Your task to perform on an android device: delete a single message in the gmail app Image 0: 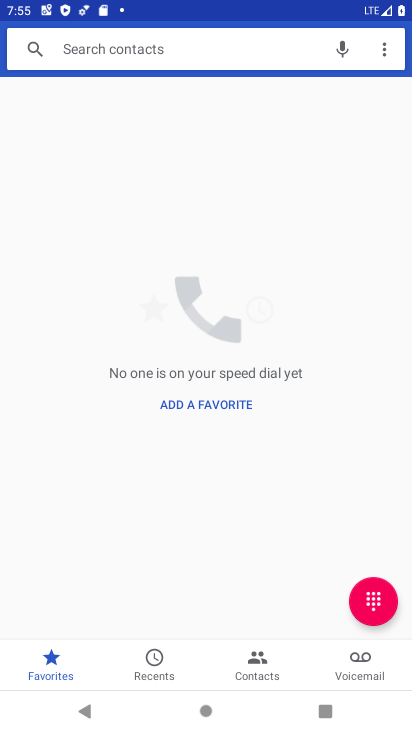
Step 0: press home button
Your task to perform on an android device: delete a single message in the gmail app Image 1: 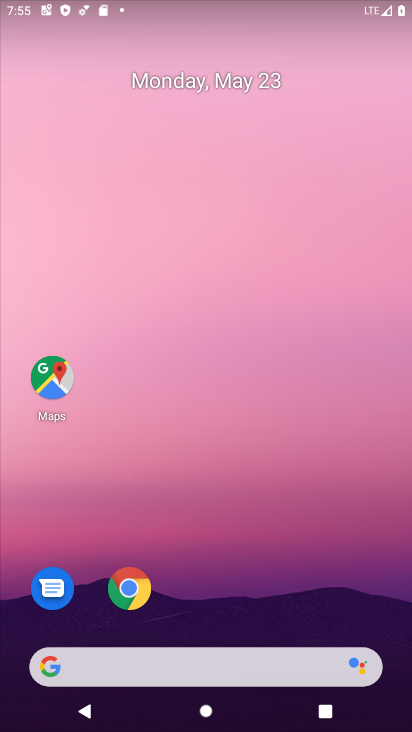
Step 1: drag from (396, 700) to (397, 145)
Your task to perform on an android device: delete a single message in the gmail app Image 2: 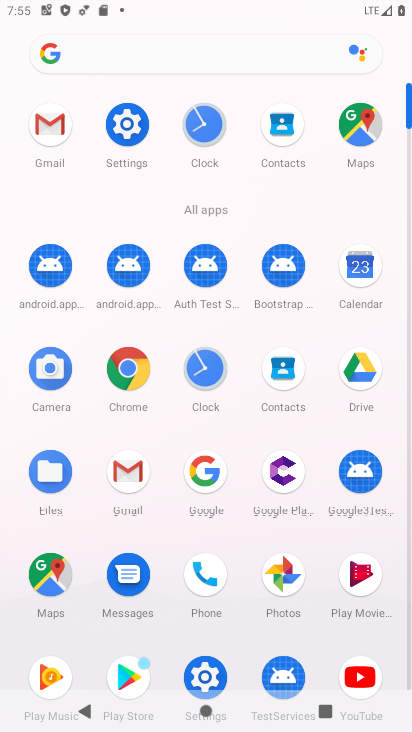
Step 2: click (127, 469)
Your task to perform on an android device: delete a single message in the gmail app Image 3: 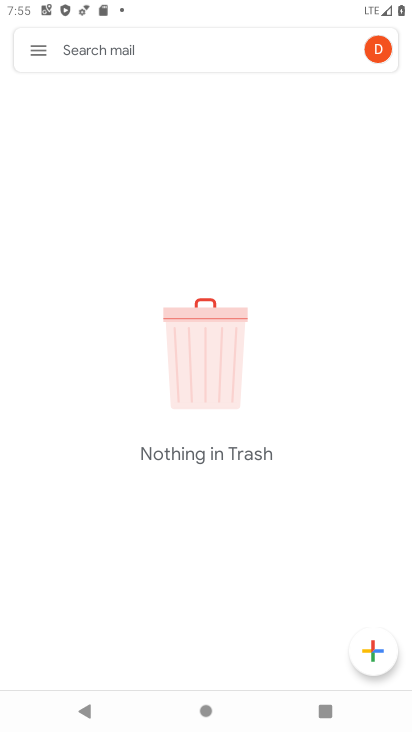
Step 3: click (38, 41)
Your task to perform on an android device: delete a single message in the gmail app Image 4: 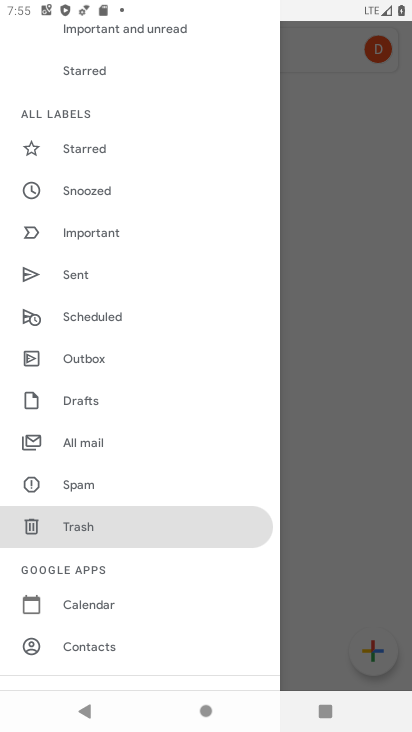
Step 4: drag from (196, 111) to (193, 449)
Your task to perform on an android device: delete a single message in the gmail app Image 5: 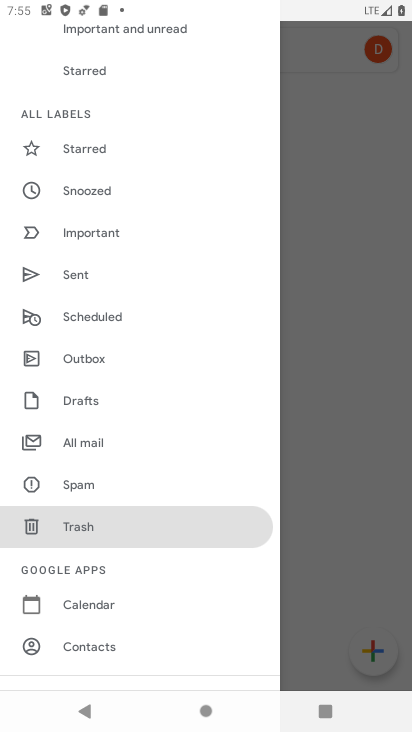
Step 5: drag from (248, 59) to (221, 577)
Your task to perform on an android device: delete a single message in the gmail app Image 6: 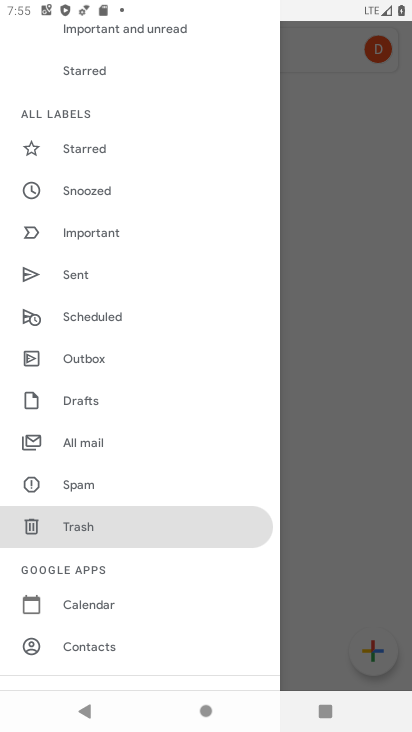
Step 6: drag from (214, 334) to (205, 598)
Your task to perform on an android device: delete a single message in the gmail app Image 7: 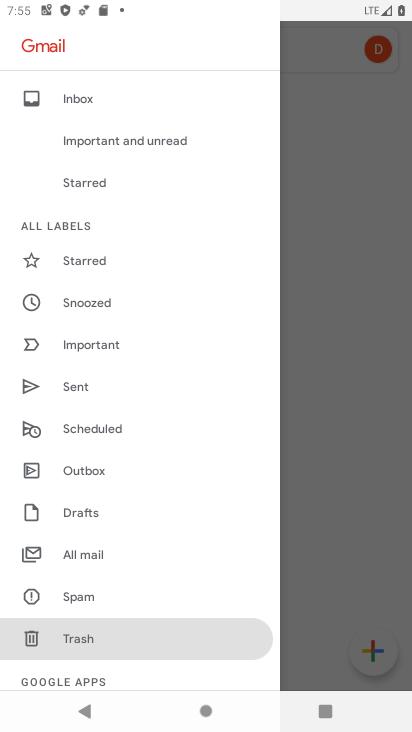
Step 7: click (73, 96)
Your task to perform on an android device: delete a single message in the gmail app Image 8: 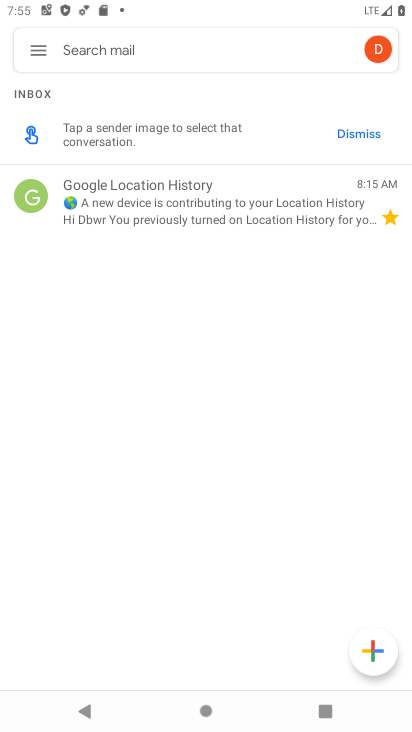
Step 8: click (273, 197)
Your task to perform on an android device: delete a single message in the gmail app Image 9: 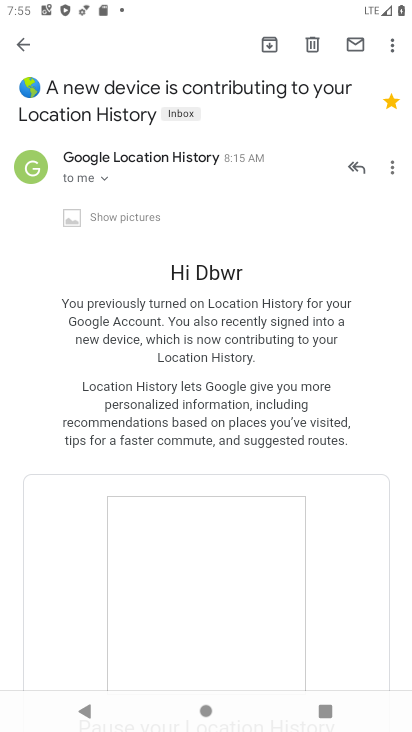
Step 9: click (312, 39)
Your task to perform on an android device: delete a single message in the gmail app Image 10: 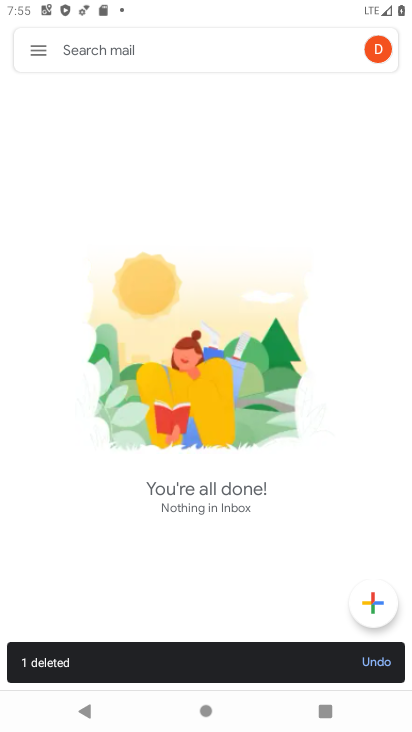
Step 10: task complete